Your task to perform on an android device: Go to display settings Image 0: 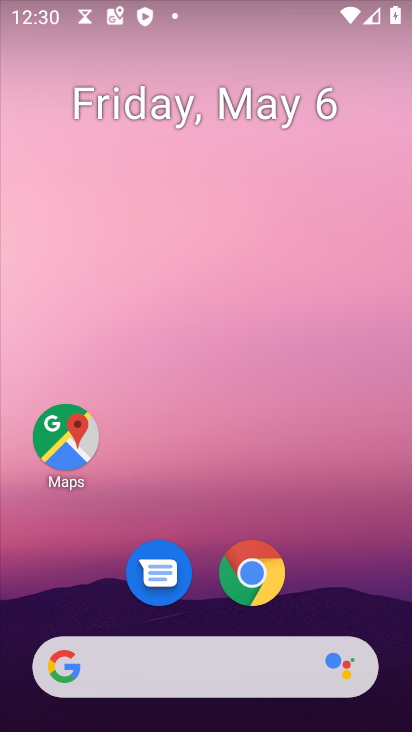
Step 0: drag from (328, 538) to (328, 302)
Your task to perform on an android device: Go to display settings Image 1: 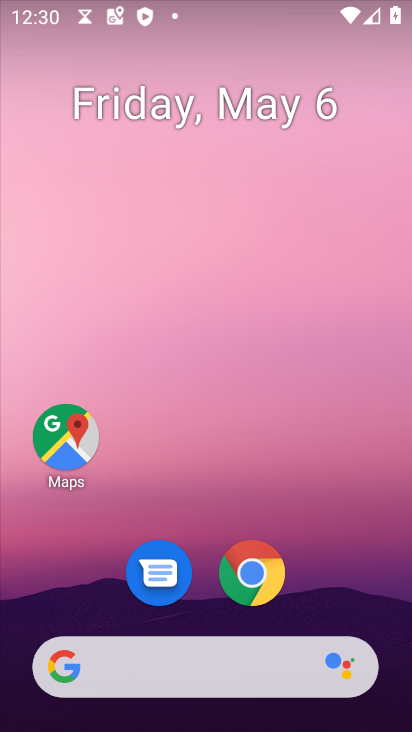
Step 1: drag from (315, 576) to (323, 227)
Your task to perform on an android device: Go to display settings Image 2: 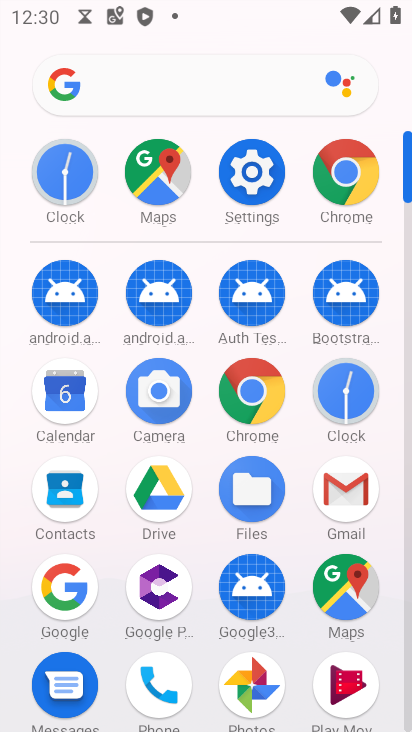
Step 2: click (243, 171)
Your task to perform on an android device: Go to display settings Image 3: 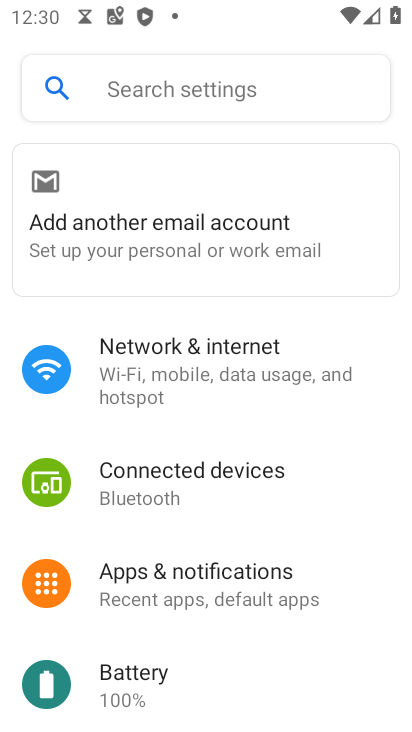
Step 3: drag from (185, 654) to (260, 296)
Your task to perform on an android device: Go to display settings Image 4: 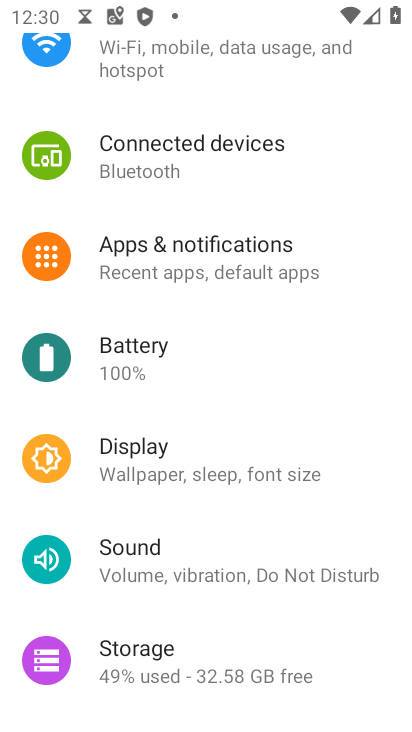
Step 4: click (164, 468)
Your task to perform on an android device: Go to display settings Image 5: 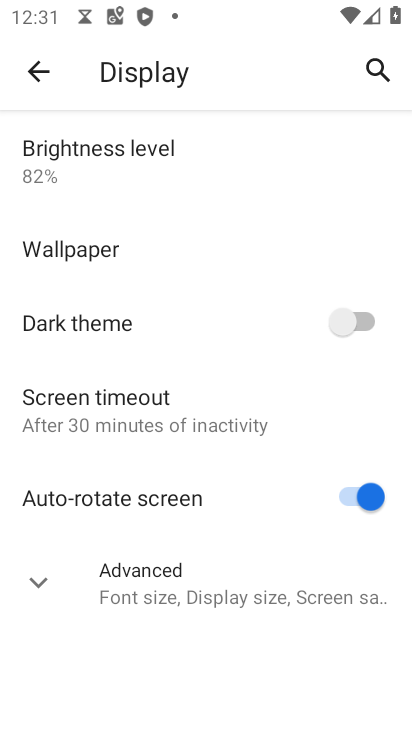
Step 5: task complete